Your task to perform on an android device: turn off improve location accuracy Image 0: 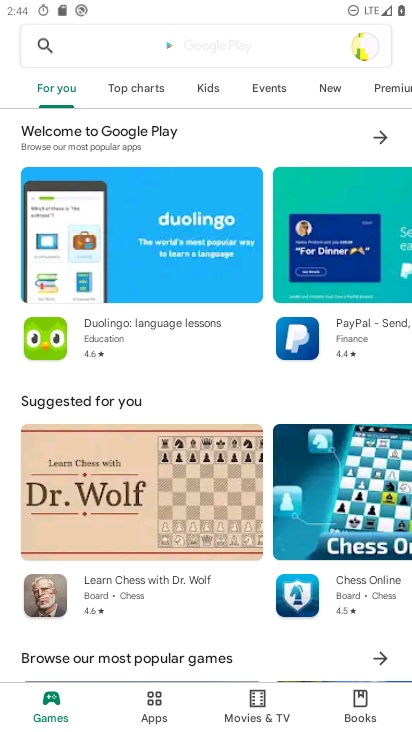
Step 0: click (266, 197)
Your task to perform on an android device: turn off improve location accuracy Image 1: 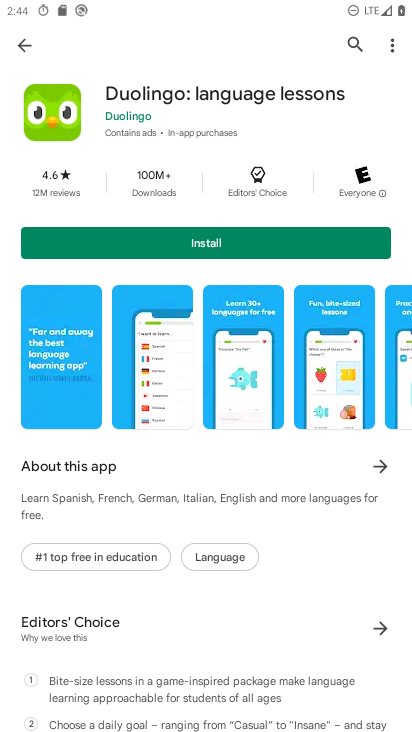
Step 1: click (31, 28)
Your task to perform on an android device: turn off improve location accuracy Image 2: 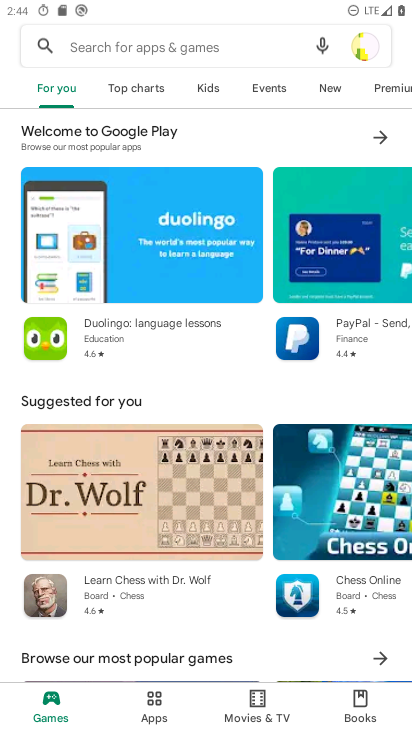
Step 2: press home button
Your task to perform on an android device: turn off improve location accuracy Image 3: 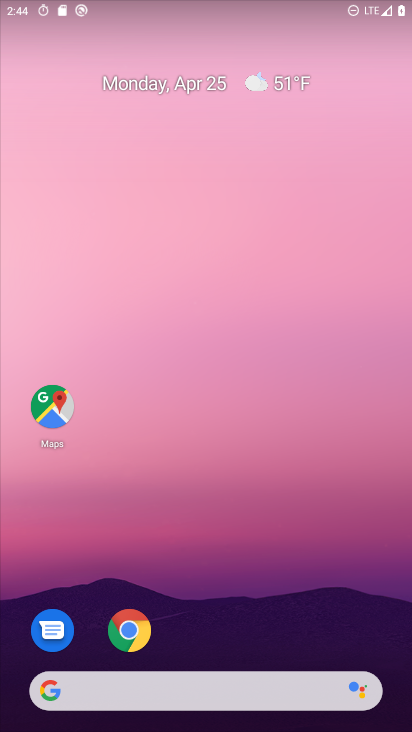
Step 3: drag from (219, 615) to (167, 20)
Your task to perform on an android device: turn off improve location accuracy Image 4: 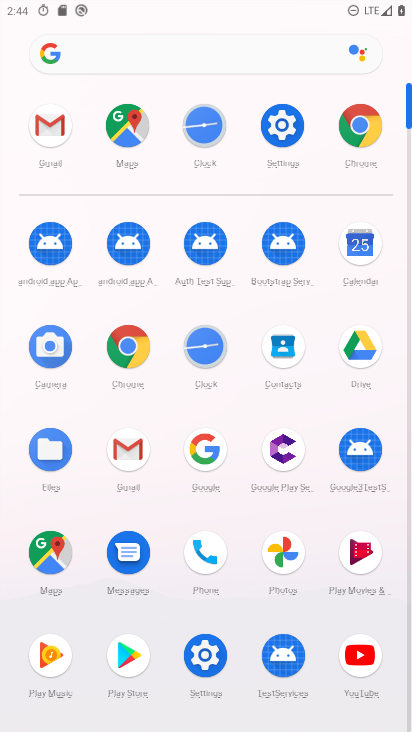
Step 4: click (278, 118)
Your task to perform on an android device: turn off improve location accuracy Image 5: 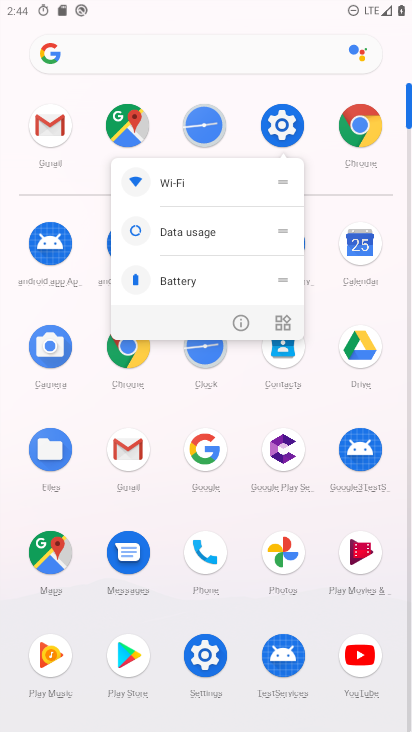
Step 5: click (240, 315)
Your task to perform on an android device: turn off improve location accuracy Image 6: 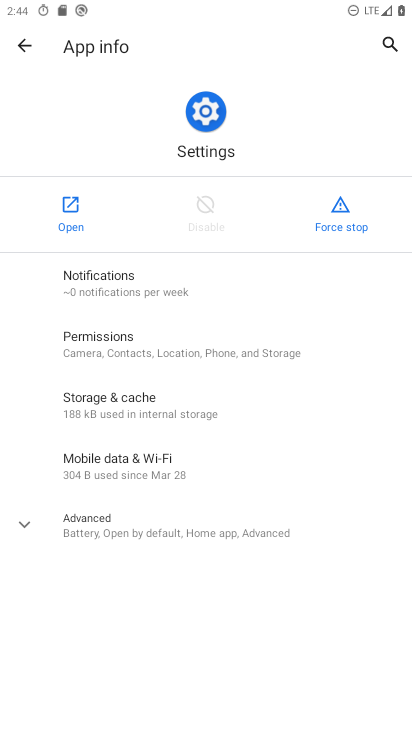
Step 6: click (46, 229)
Your task to perform on an android device: turn off improve location accuracy Image 7: 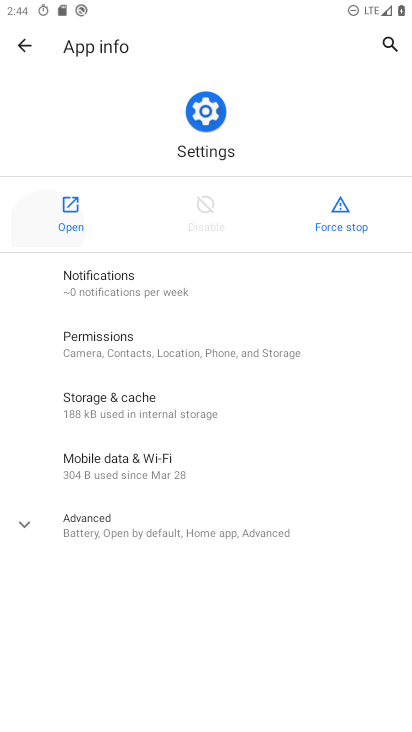
Step 7: click (64, 212)
Your task to perform on an android device: turn off improve location accuracy Image 8: 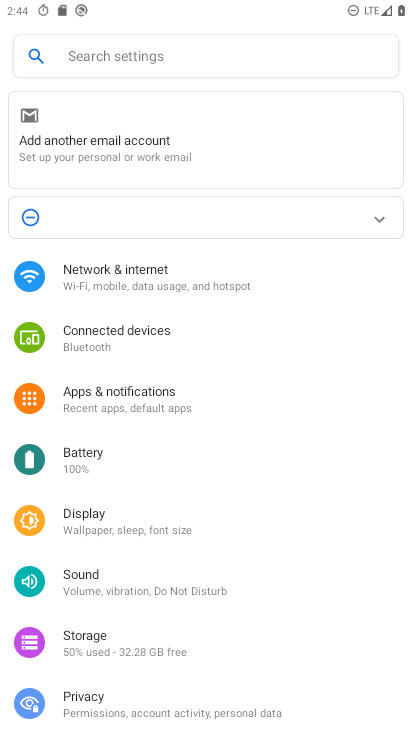
Step 8: drag from (208, 509) to (260, 215)
Your task to perform on an android device: turn off improve location accuracy Image 9: 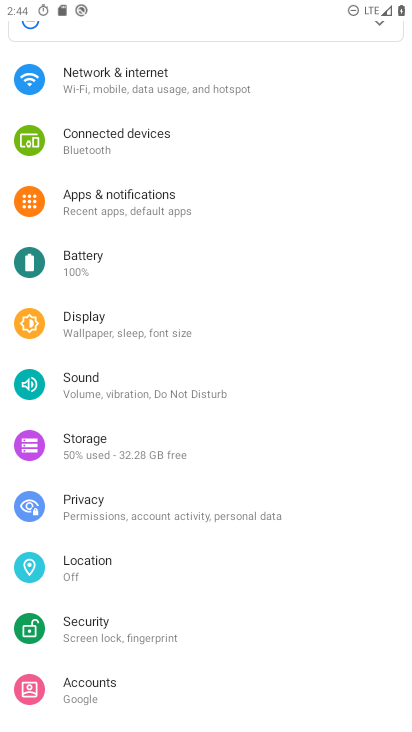
Step 9: click (126, 578)
Your task to perform on an android device: turn off improve location accuracy Image 10: 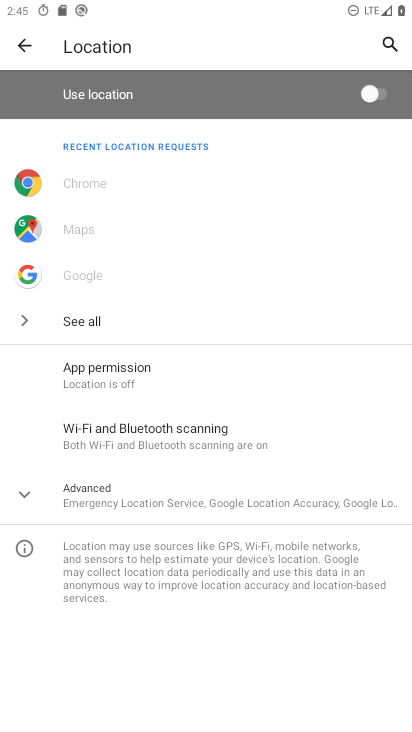
Step 10: click (135, 503)
Your task to perform on an android device: turn off improve location accuracy Image 11: 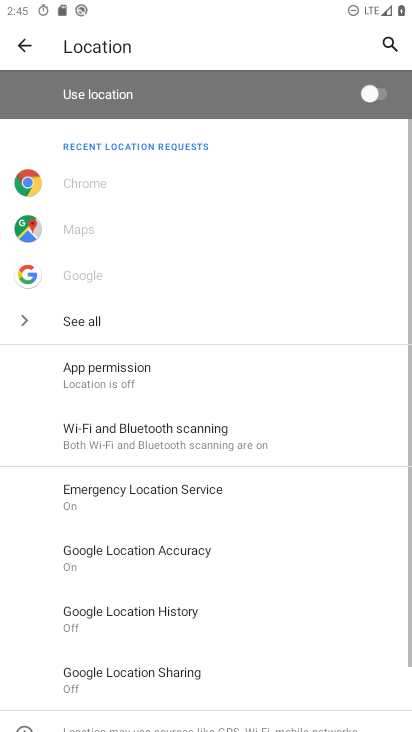
Step 11: drag from (179, 514) to (254, 256)
Your task to perform on an android device: turn off improve location accuracy Image 12: 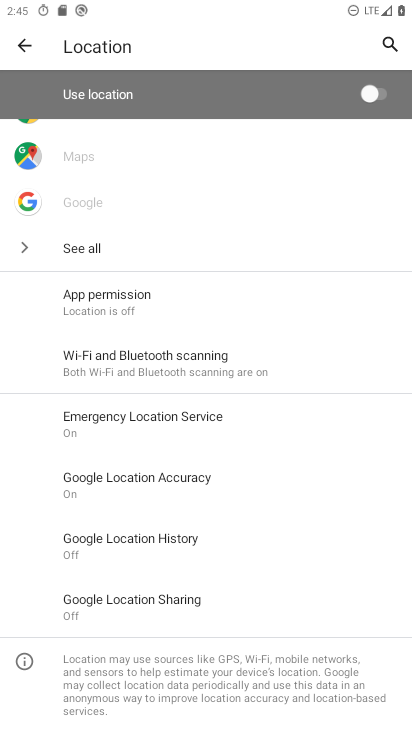
Step 12: click (233, 483)
Your task to perform on an android device: turn off improve location accuracy Image 13: 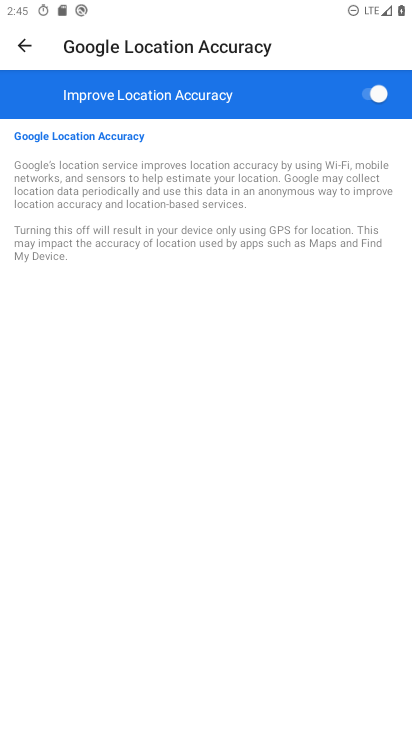
Step 13: click (382, 87)
Your task to perform on an android device: turn off improve location accuracy Image 14: 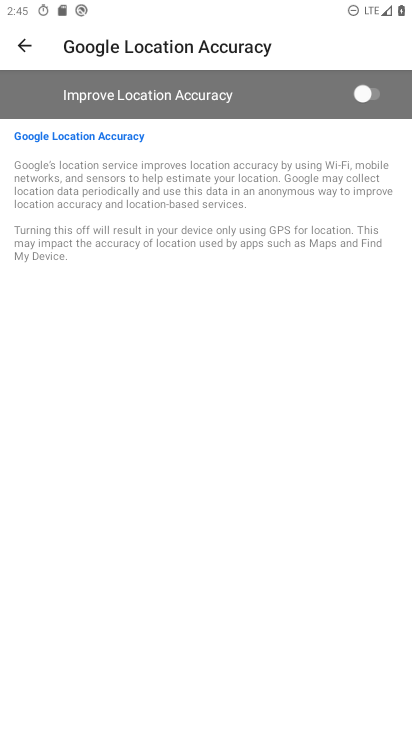
Step 14: task complete